Your task to perform on an android device: Open Maps and search for coffee Image 0: 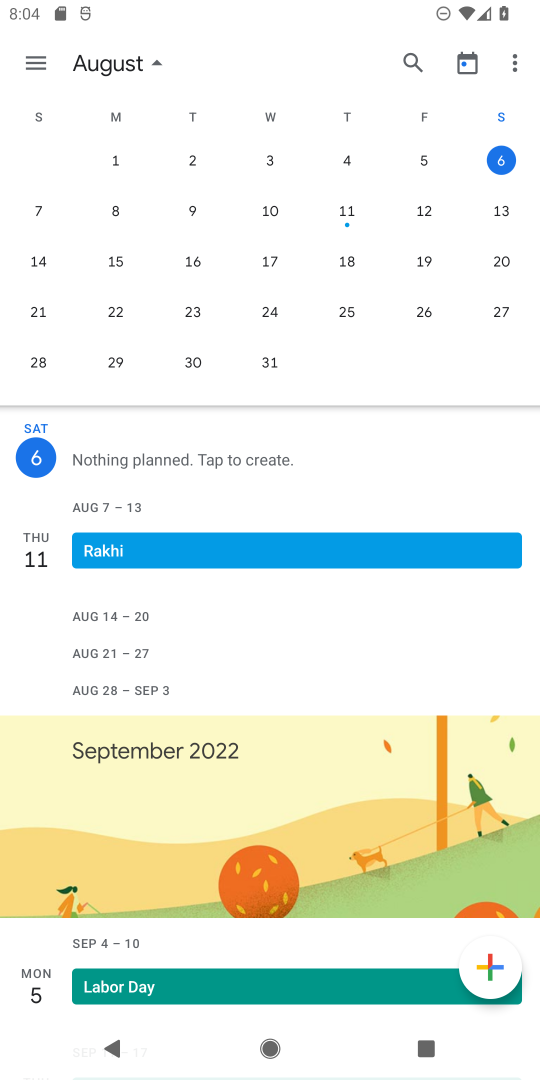
Step 0: press home button
Your task to perform on an android device: Open Maps and search for coffee Image 1: 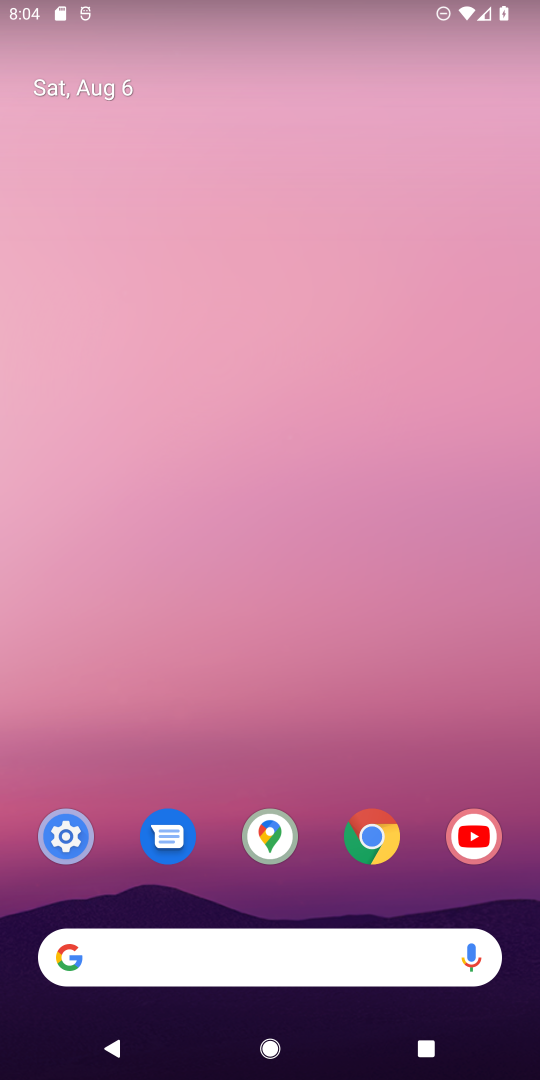
Step 1: click (264, 826)
Your task to perform on an android device: Open Maps and search for coffee Image 2: 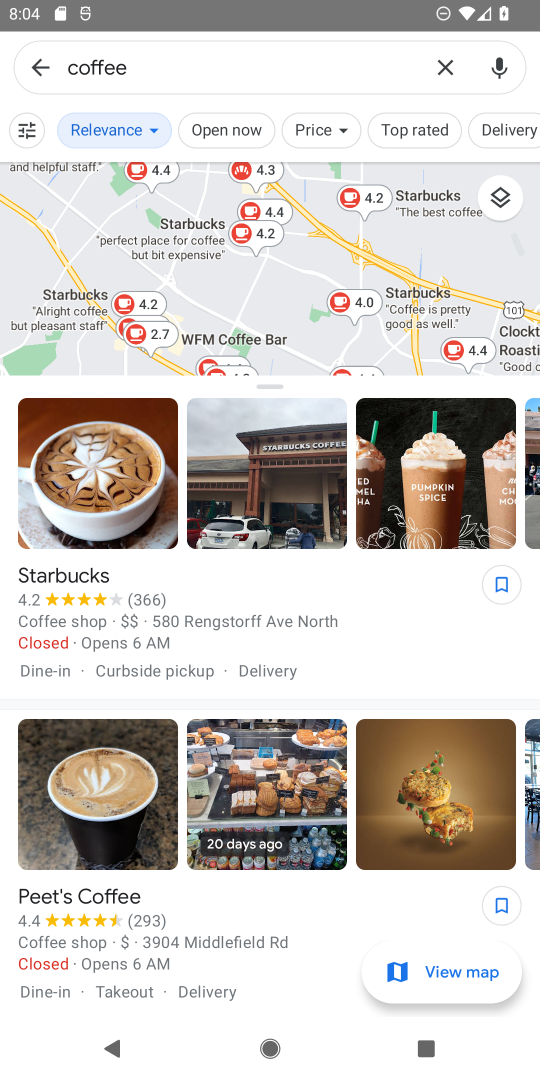
Step 2: click (444, 57)
Your task to perform on an android device: Open Maps and search for coffee Image 3: 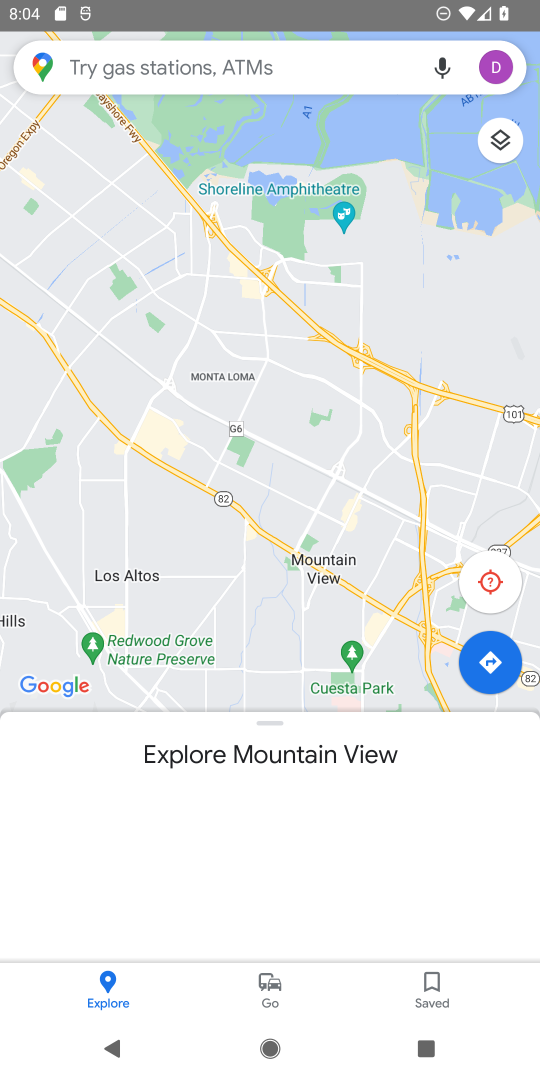
Step 3: click (266, 64)
Your task to perform on an android device: Open Maps and search for coffee Image 4: 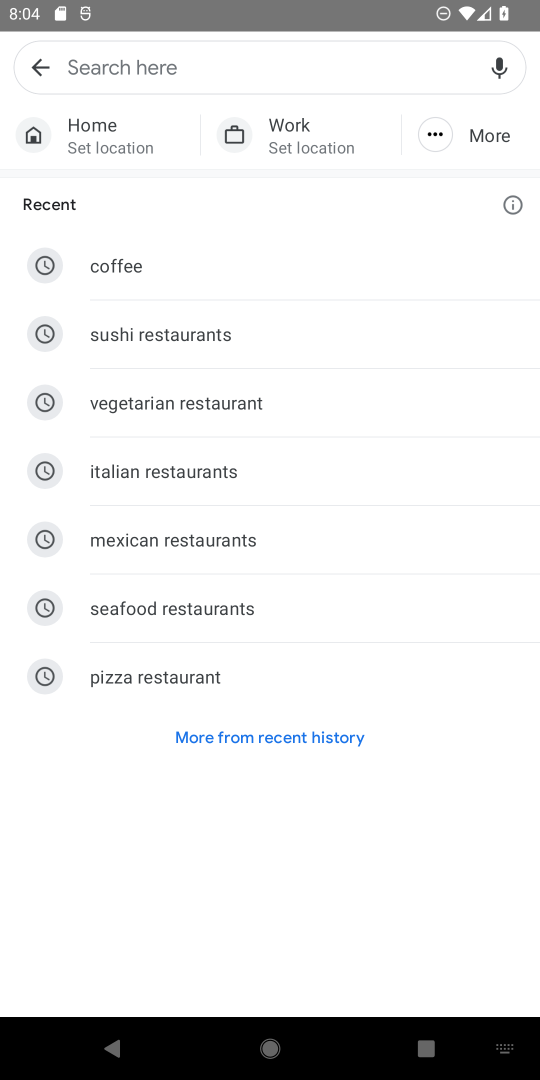
Step 4: click (134, 278)
Your task to perform on an android device: Open Maps and search for coffee Image 5: 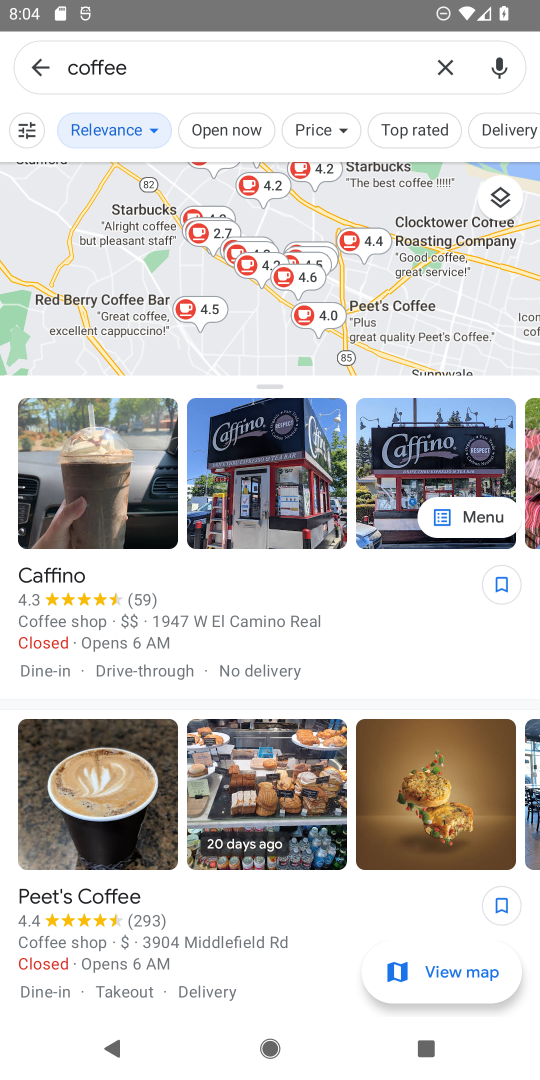
Step 5: task complete